Your task to perform on an android device: Do I have any events today? Image 0: 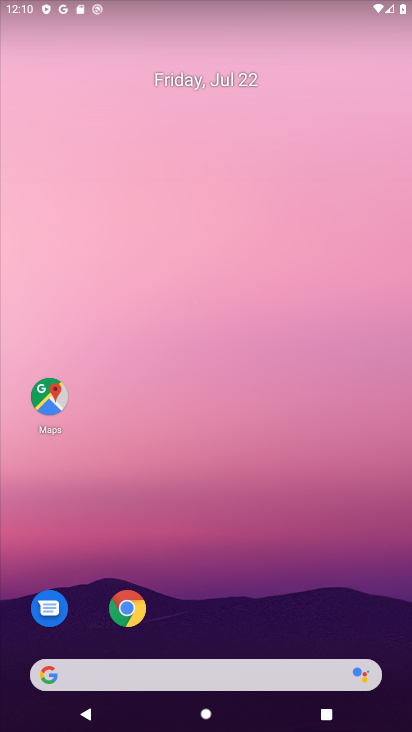
Step 0: press home button
Your task to perform on an android device: Do I have any events today? Image 1: 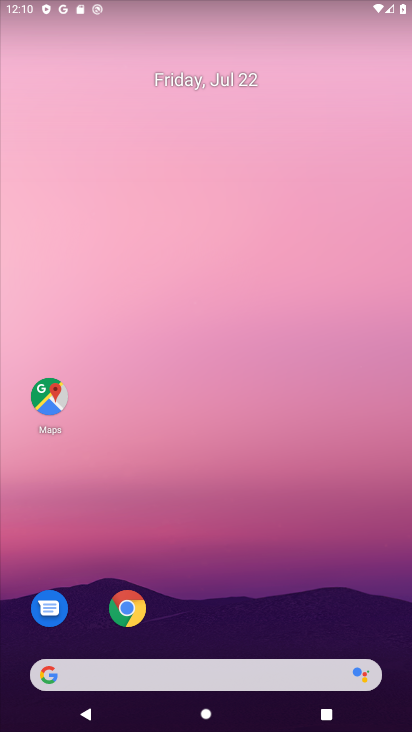
Step 1: drag from (210, 627) to (233, 5)
Your task to perform on an android device: Do I have any events today? Image 2: 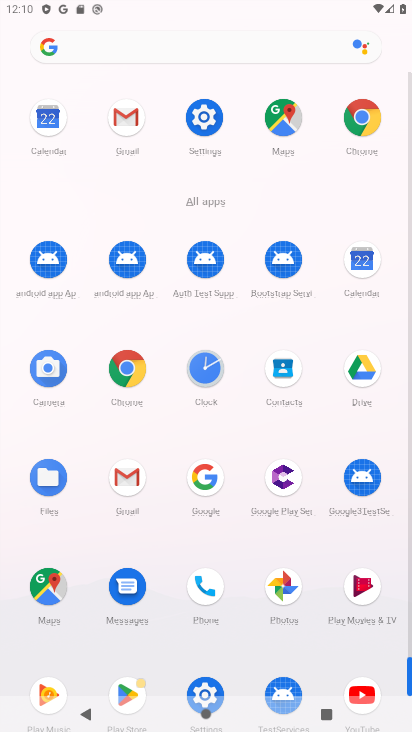
Step 2: click (361, 254)
Your task to perform on an android device: Do I have any events today? Image 3: 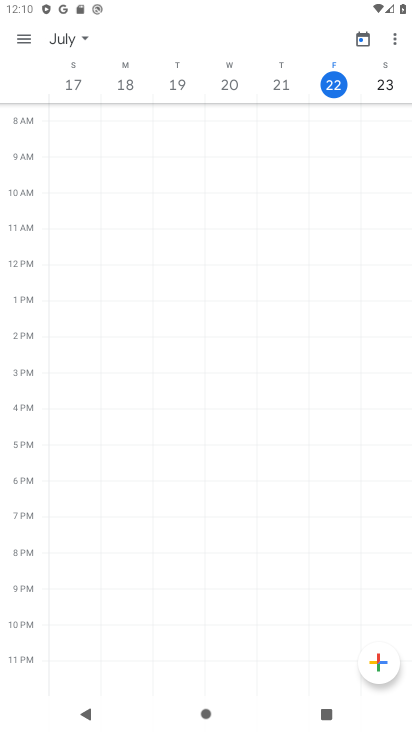
Step 3: click (331, 82)
Your task to perform on an android device: Do I have any events today? Image 4: 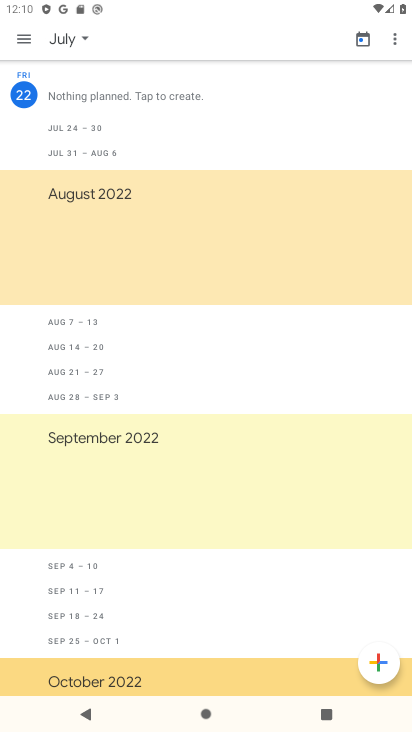
Step 4: click (30, 91)
Your task to perform on an android device: Do I have any events today? Image 5: 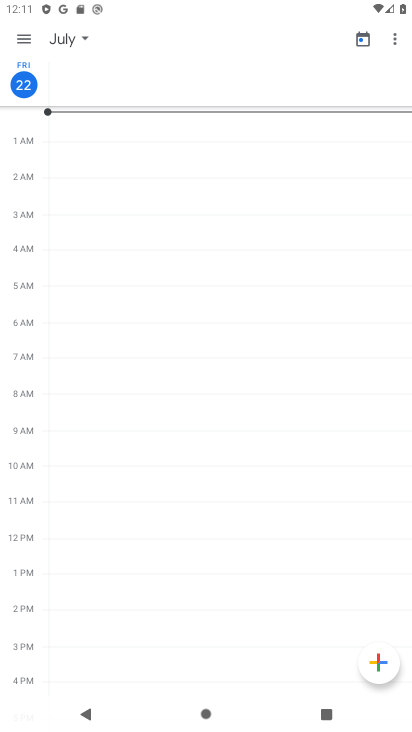
Step 5: click (21, 33)
Your task to perform on an android device: Do I have any events today? Image 6: 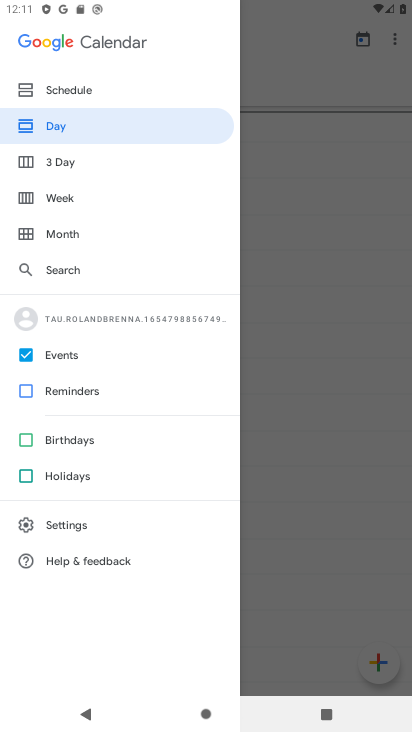
Step 6: click (58, 125)
Your task to perform on an android device: Do I have any events today? Image 7: 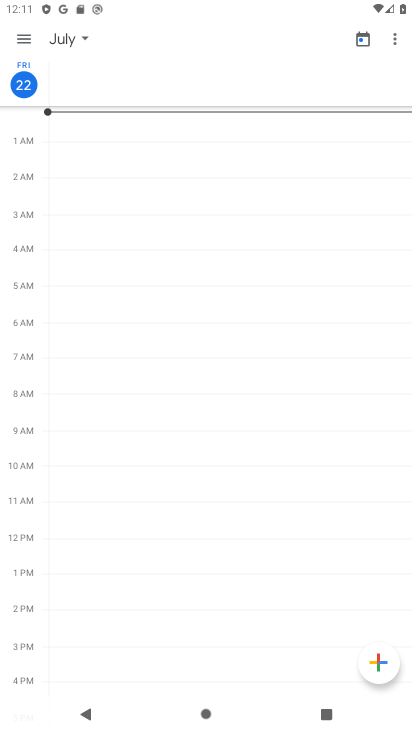
Step 7: task complete